Your task to perform on an android device: View the shopping cart on amazon. Search for bose soundlink mini on amazon, select the first entry, add it to the cart, then select checkout. Image 0: 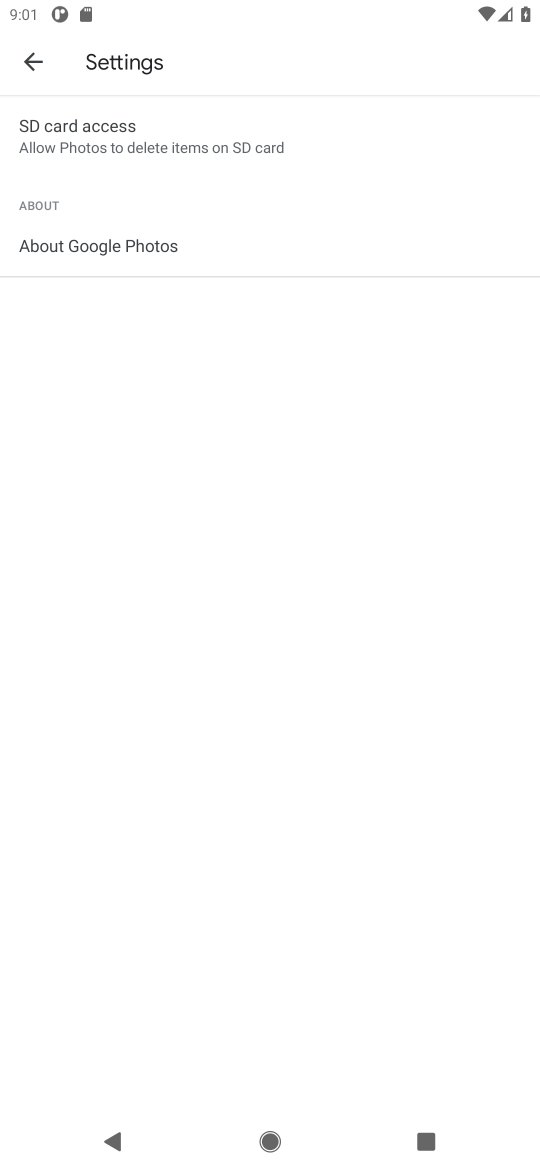
Step 0: press home button
Your task to perform on an android device: View the shopping cart on amazon. Search for bose soundlink mini on amazon, select the first entry, add it to the cart, then select checkout. Image 1: 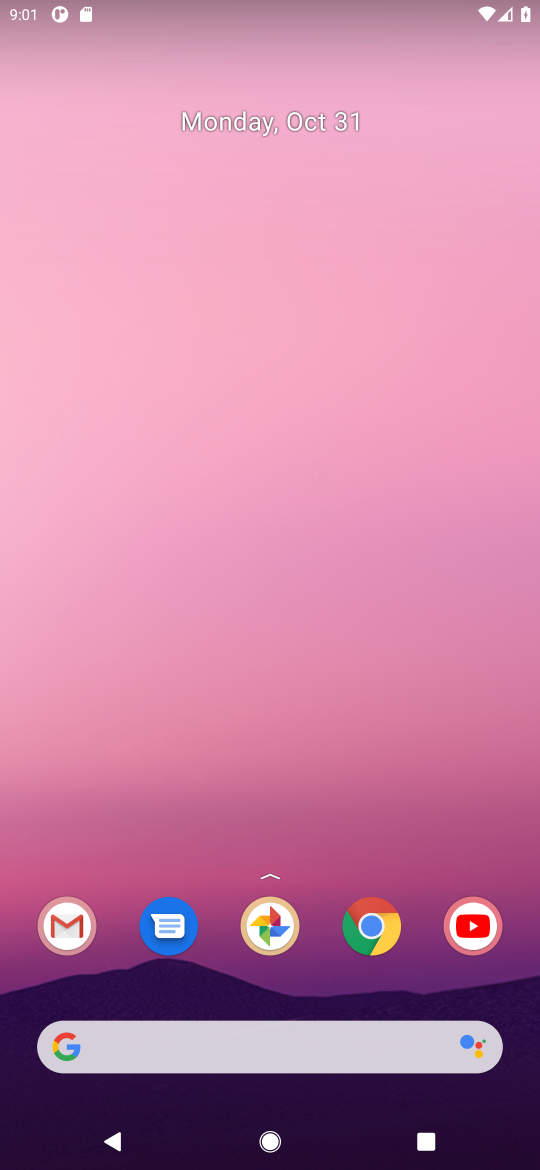
Step 1: click (375, 926)
Your task to perform on an android device: View the shopping cart on amazon. Search for bose soundlink mini on amazon, select the first entry, add it to the cart, then select checkout. Image 2: 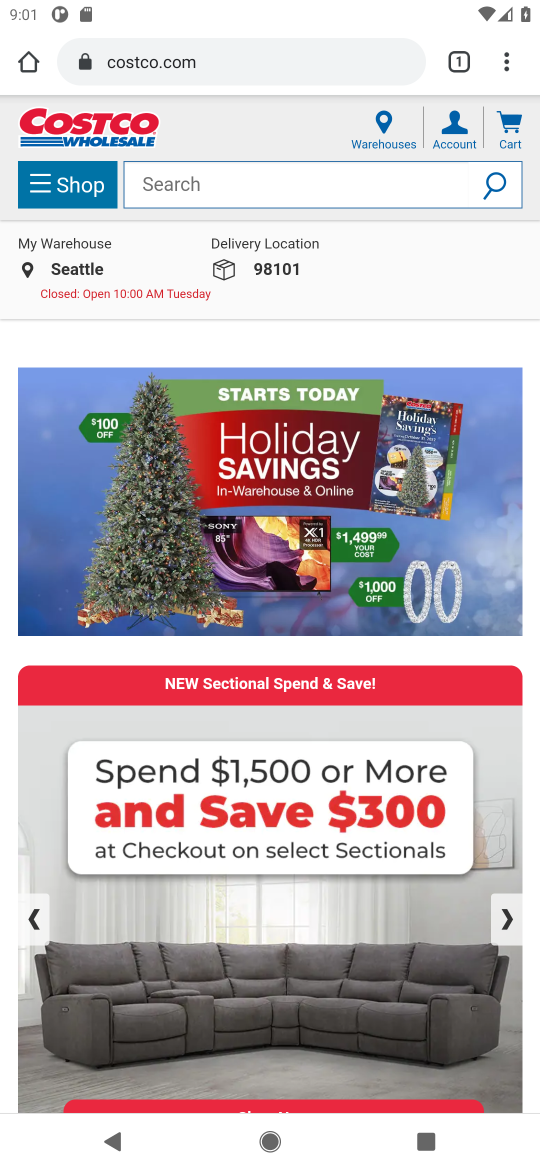
Step 2: click (457, 52)
Your task to perform on an android device: View the shopping cart on amazon. Search for bose soundlink mini on amazon, select the first entry, add it to the cart, then select checkout. Image 3: 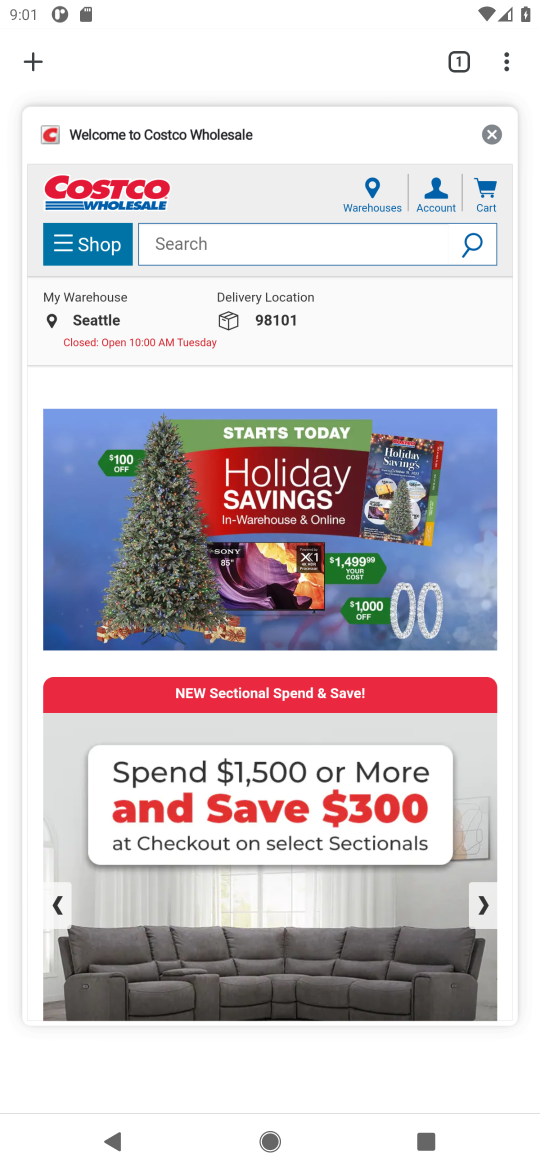
Step 3: click (38, 56)
Your task to perform on an android device: View the shopping cart on amazon. Search for bose soundlink mini on amazon, select the first entry, add it to the cart, then select checkout. Image 4: 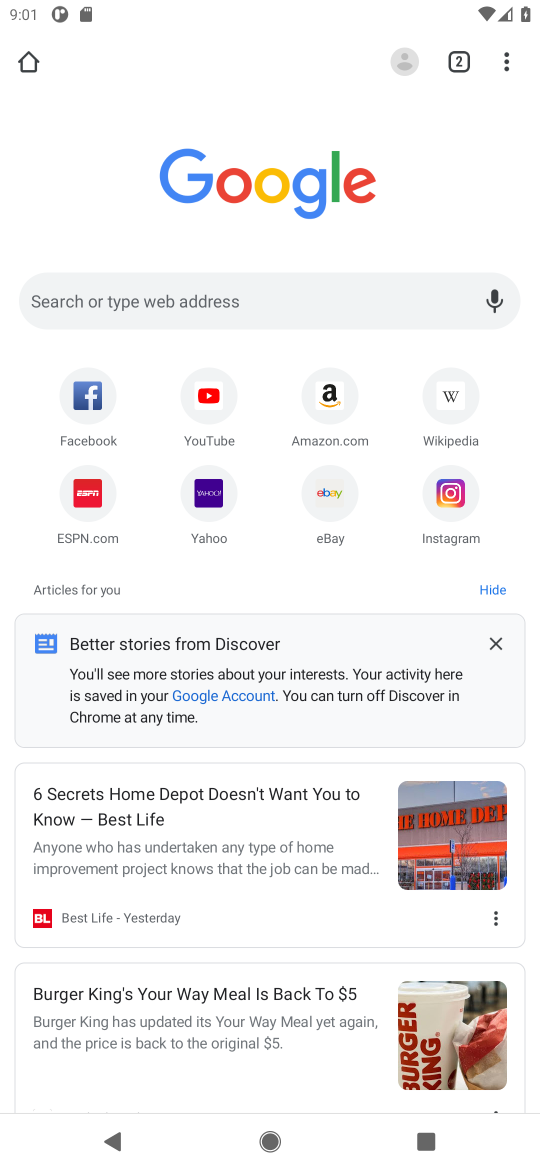
Step 4: click (327, 403)
Your task to perform on an android device: View the shopping cart on amazon. Search for bose soundlink mini on amazon, select the first entry, add it to the cart, then select checkout. Image 5: 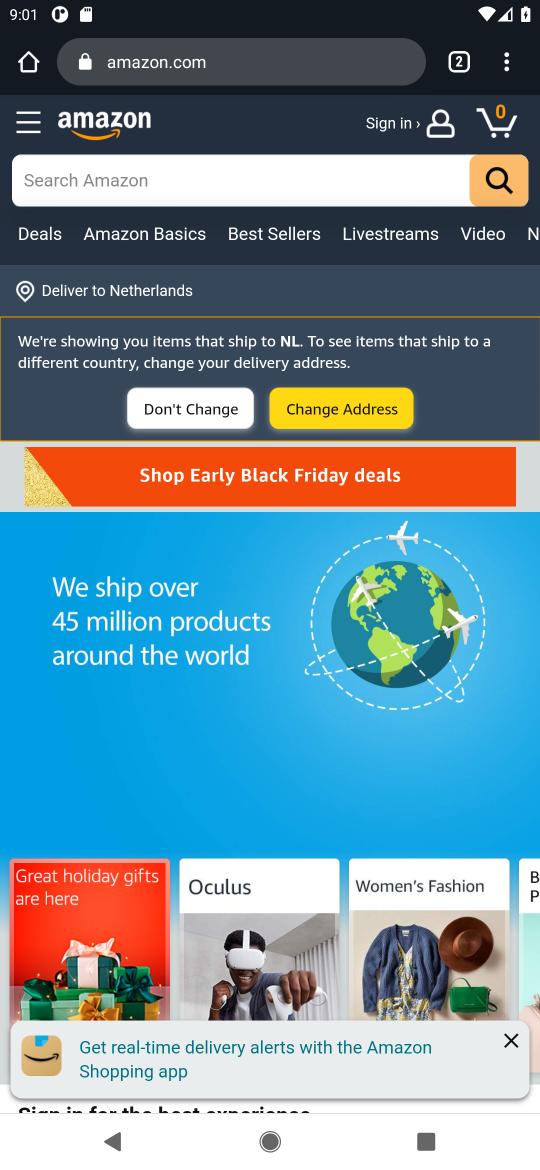
Step 5: click (229, 174)
Your task to perform on an android device: View the shopping cart on amazon. Search for bose soundlink mini on amazon, select the first entry, add it to the cart, then select checkout. Image 6: 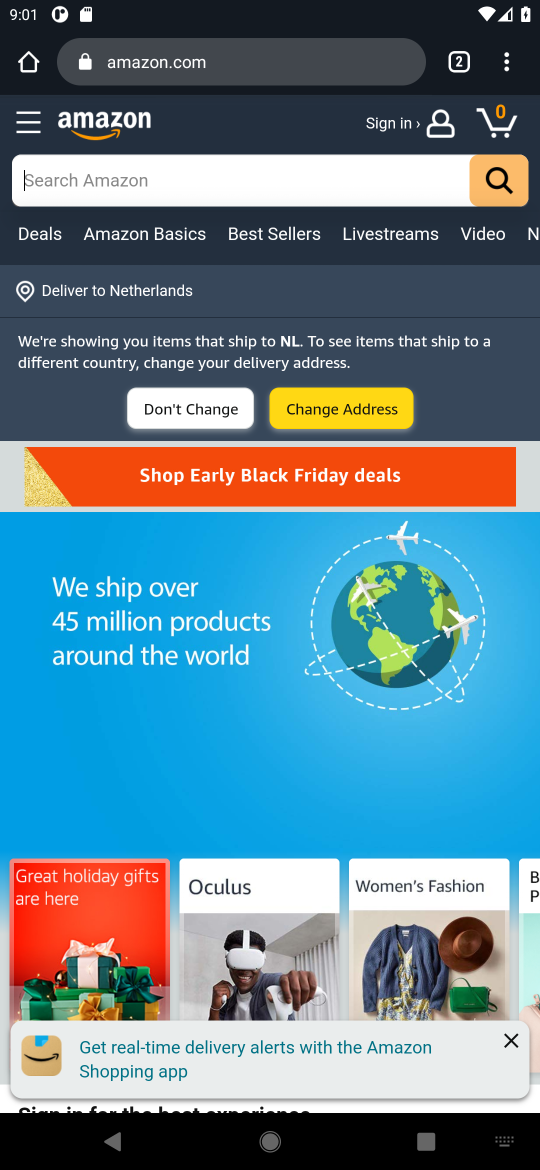
Step 6: type "bose soundlink mini"
Your task to perform on an android device: View the shopping cart on amazon. Search for bose soundlink mini on amazon, select the first entry, add it to the cart, then select checkout. Image 7: 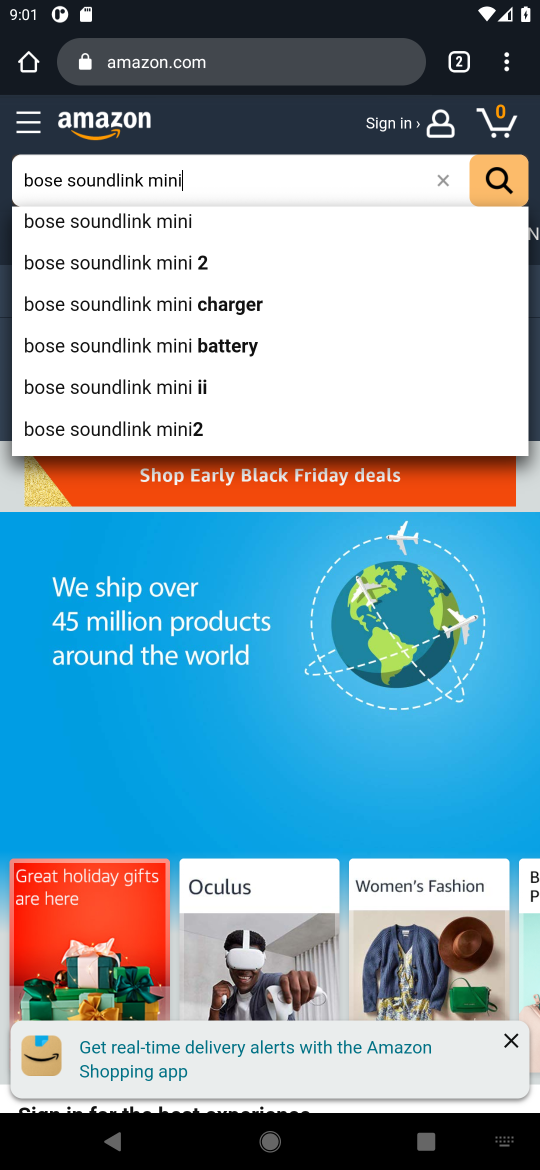
Step 7: click (120, 222)
Your task to perform on an android device: View the shopping cart on amazon. Search for bose soundlink mini on amazon, select the first entry, add it to the cart, then select checkout. Image 8: 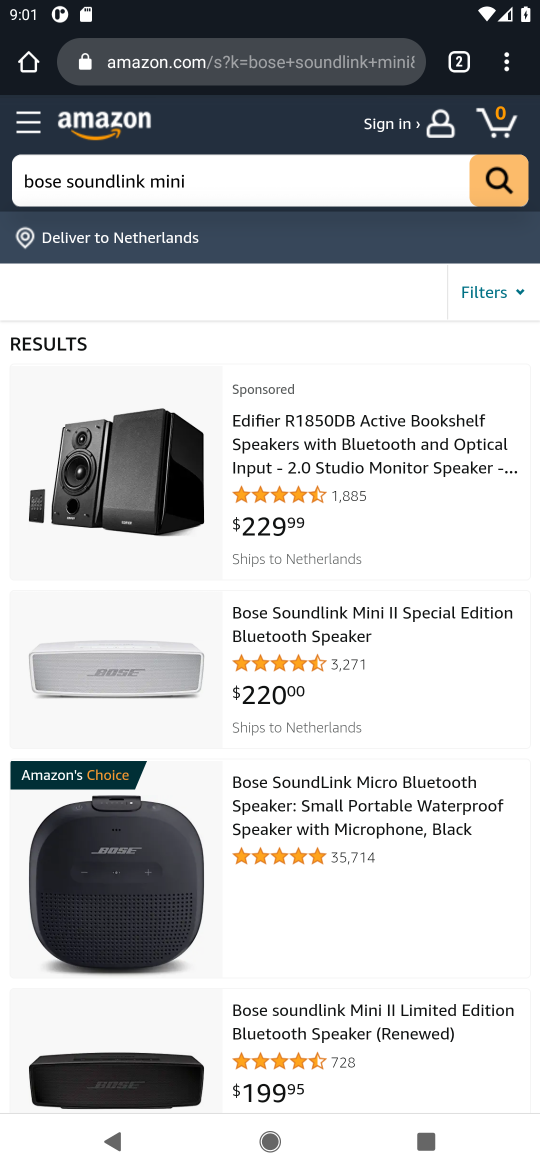
Step 8: click (361, 796)
Your task to perform on an android device: View the shopping cart on amazon. Search for bose soundlink mini on amazon, select the first entry, add it to the cart, then select checkout. Image 9: 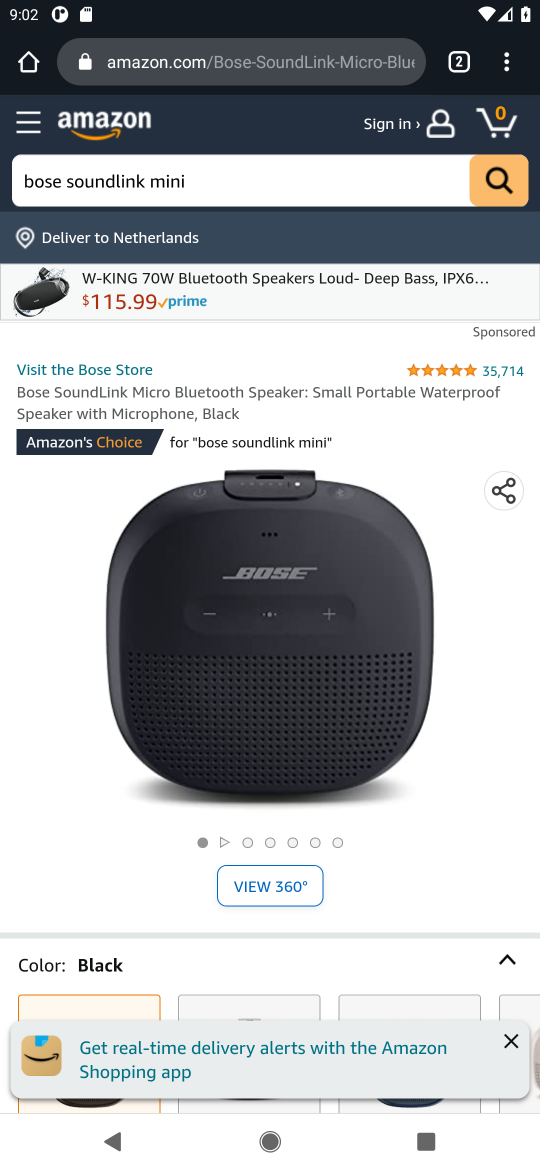
Step 9: drag from (257, 948) to (349, 505)
Your task to perform on an android device: View the shopping cart on amazon. Search for bose soundlink mini on amazon, select the first entry, add it to the cart, then select checkout. Image 10: 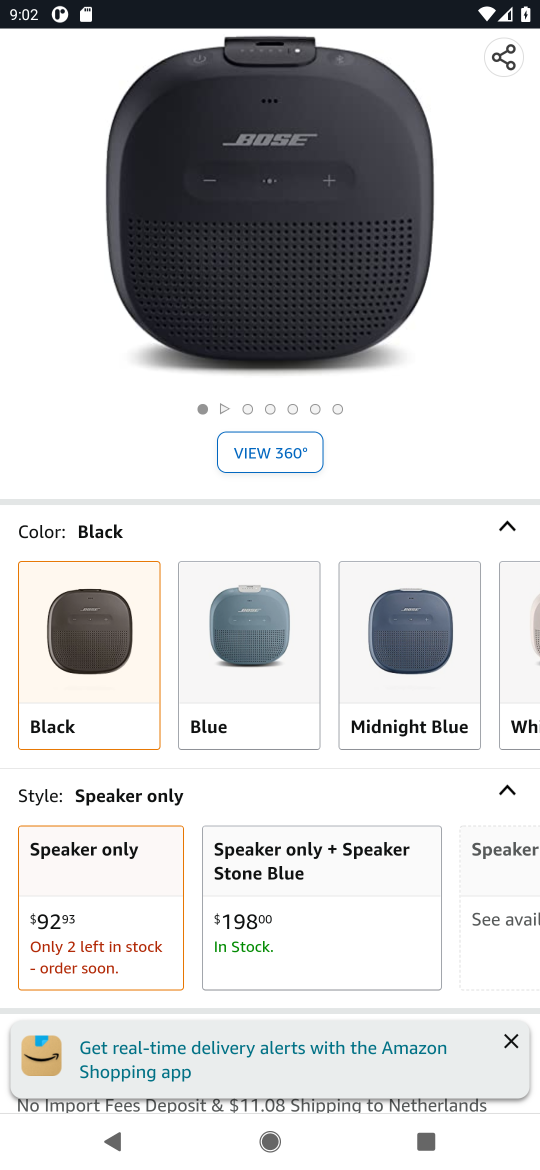
Step 10: click (509, 1033)
Your task to perform on an android device: View the shopping cart on amazon. Search for bose soundlink mini on amazon, select the first entry, add it to the cart, then select checkout. Image 11: 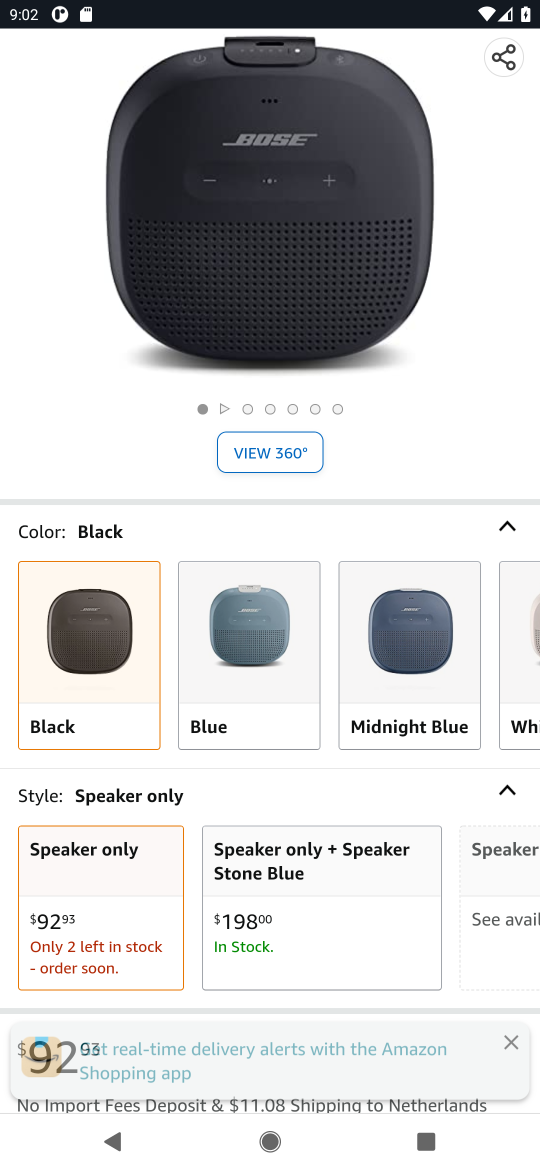
Step 11: drag from (383, 518) to (475, 232)
Your task to perform on an android device: View the shopping cart on amazon. Search for bose soundlink mini on amazon, select the first entry, add it to the cart, then select checkout. Image 12: 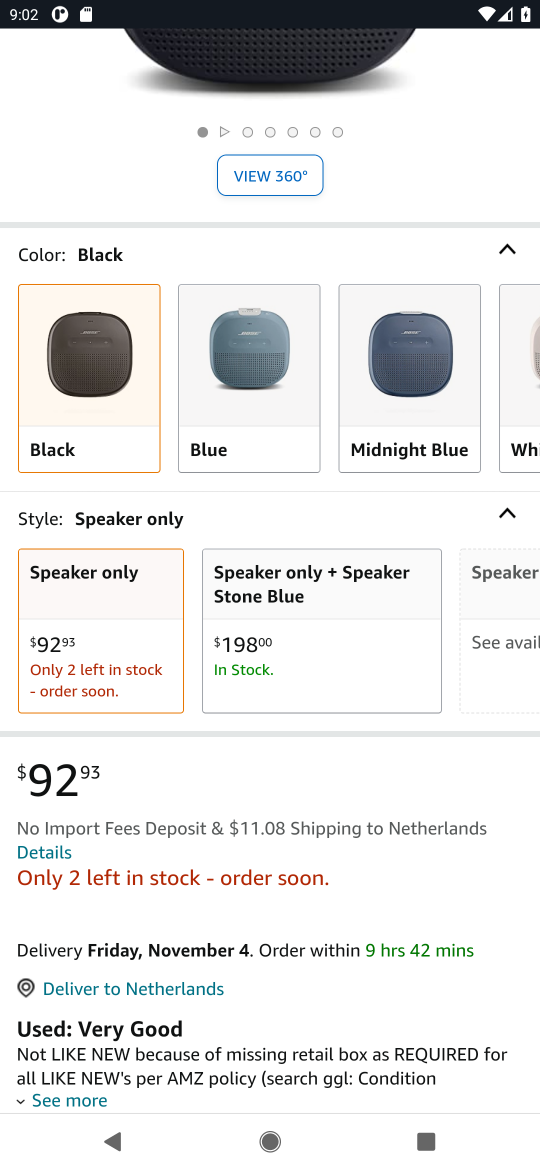
Step 12: drag from (265, 988) to (240, 105)
Your task to perform on an android device: View the shopping cart on amazon. Search for bose soundlink mini on amazon, select the first entry, add it to the cart, then select checkout. Image 13: 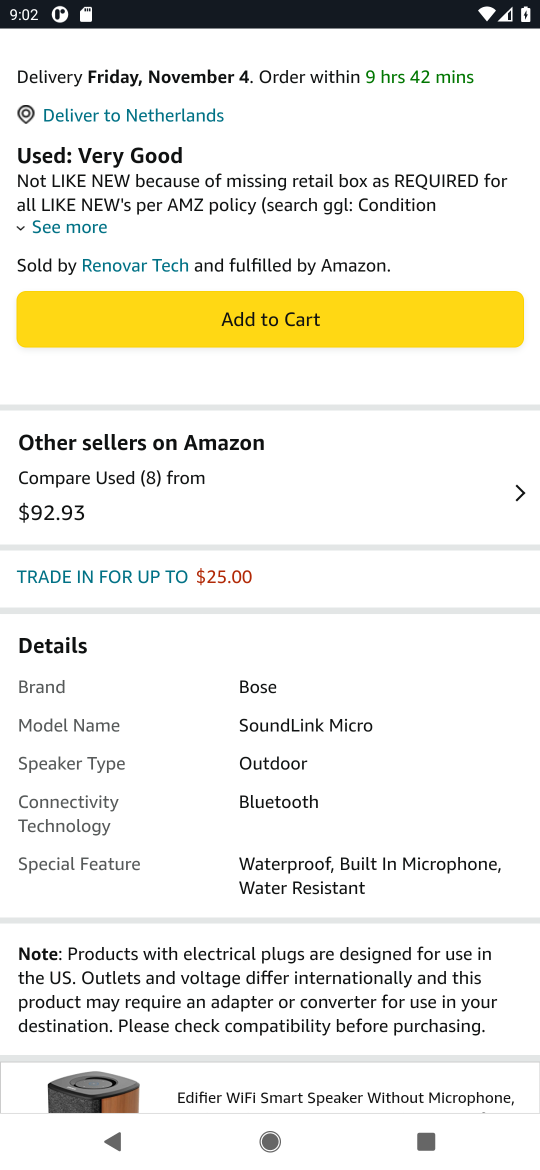
Step 13: click (285, 315)
Your task to perform on an android device: View the shopping cart on amazon. Search for bose soundlink mini on amazon, select the first entry, add it to the cart, then select checkout. Image 14: 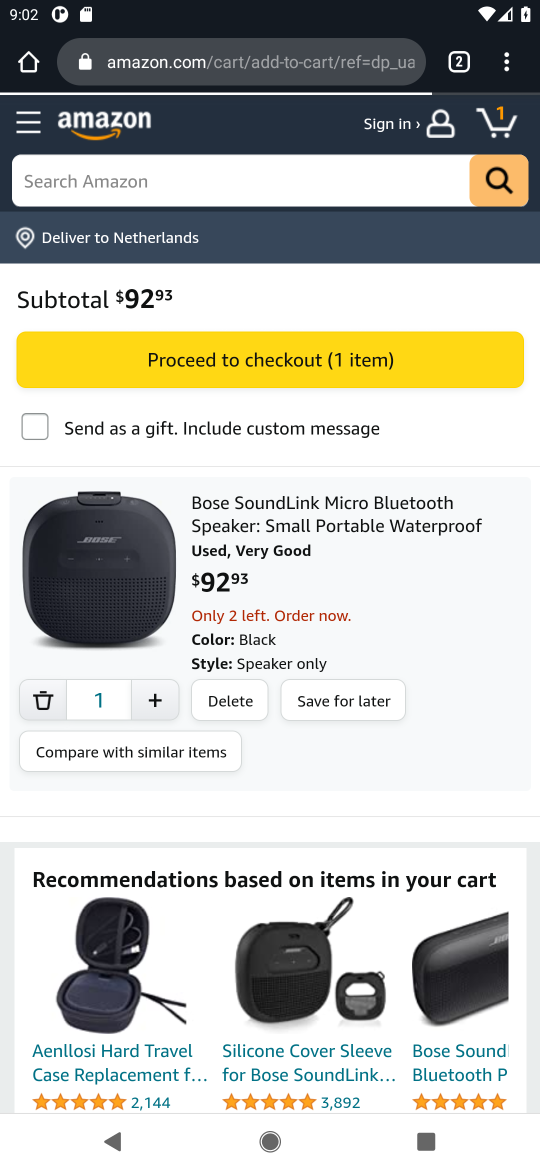
Step 14: task complete